Your task to perform on an android device: open app "PlayWell" Image 0: 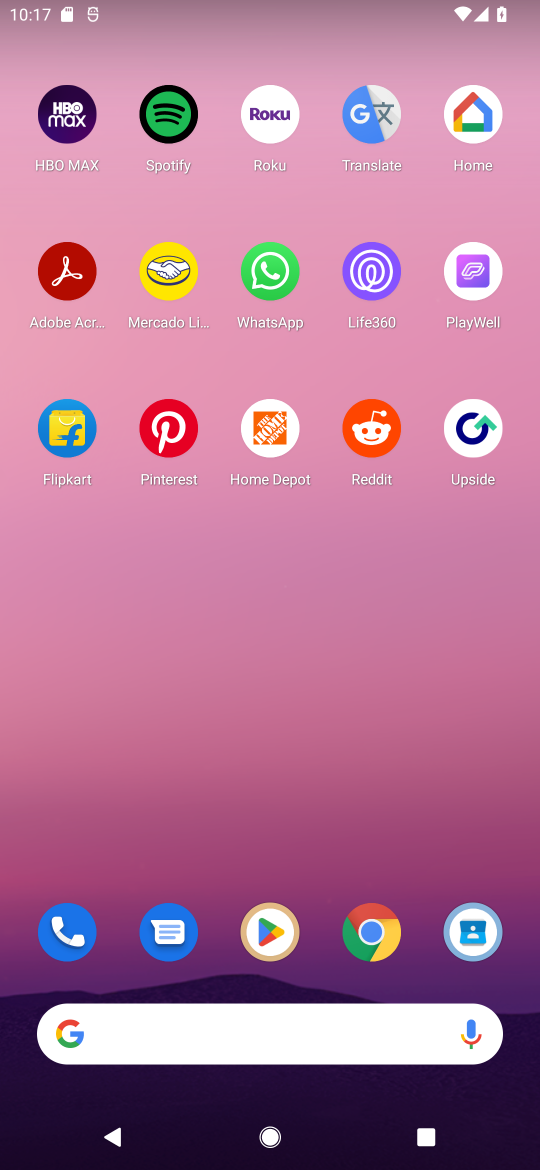
Step 0: click (487, 283)
Your task to perform on an android device: open app "PlayWell" Image 1: 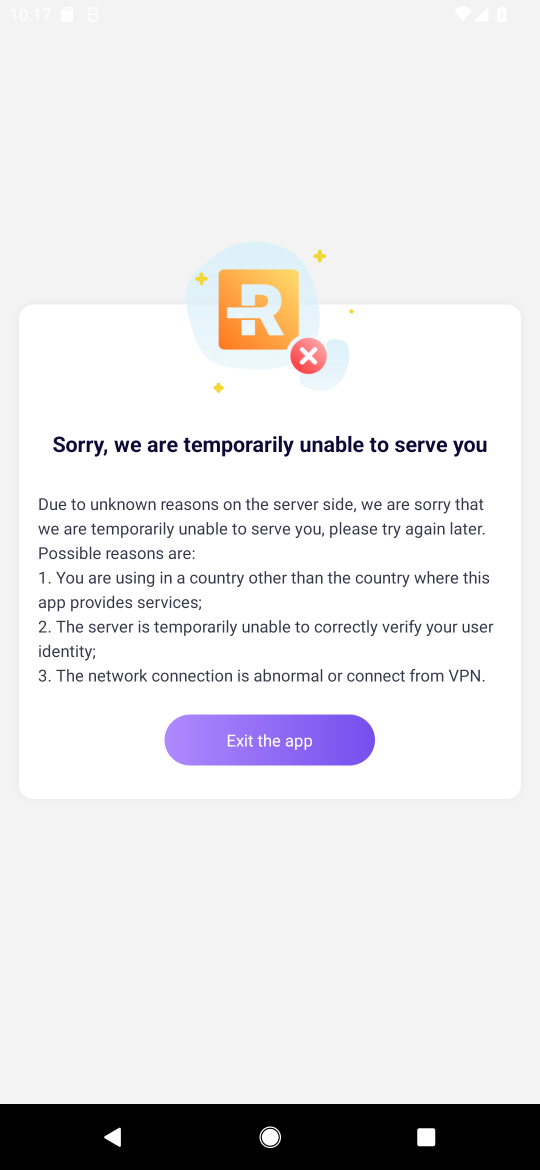
Step 1: task complete